Your task to perform on an android device: Open my contact list Image 0: 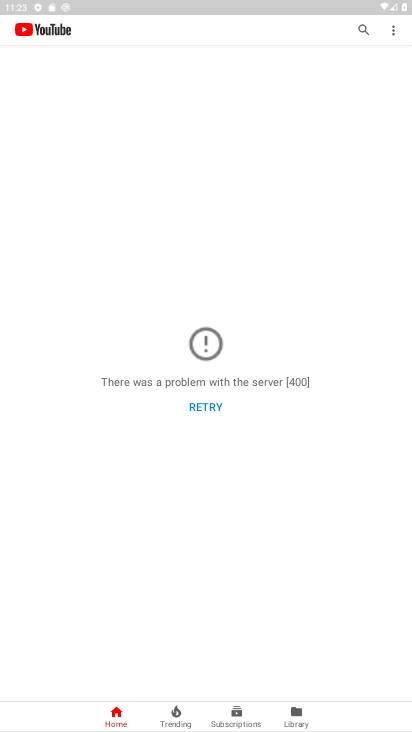
Step 0: press home button
Your task to perform on an android device: Open my contact list Image 1: 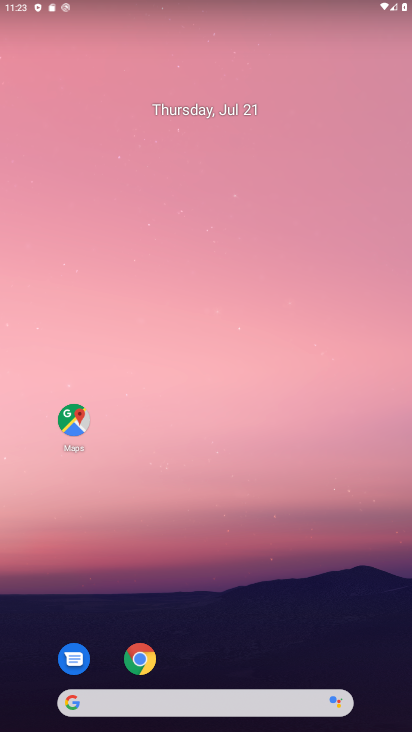
Step 1: drag from (184, 656) to (215, 274)
Your task to perform on an android device: Open my contact list Image 2: 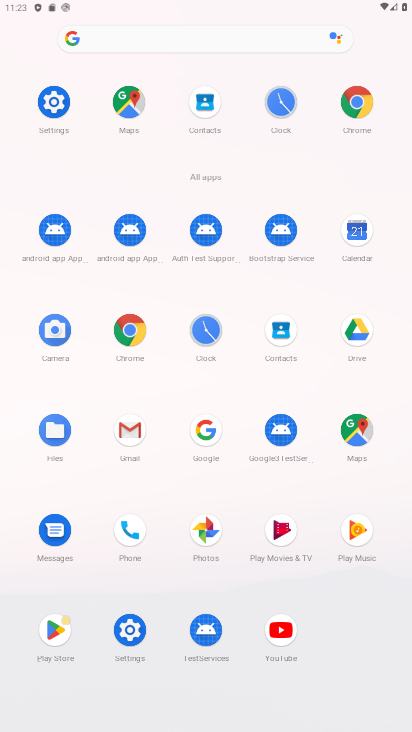
Step 2: click (275, 336)
Your task to perform on an android device: Open my contact list Image 3: 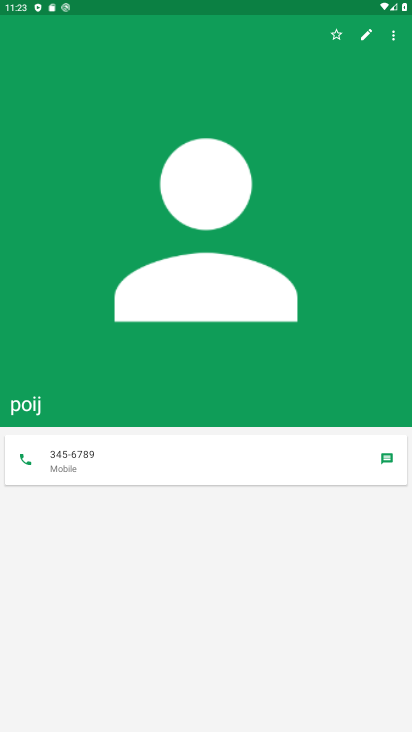
Step 3: task complete